Your task to perform on an android device: set the timer Image 0: 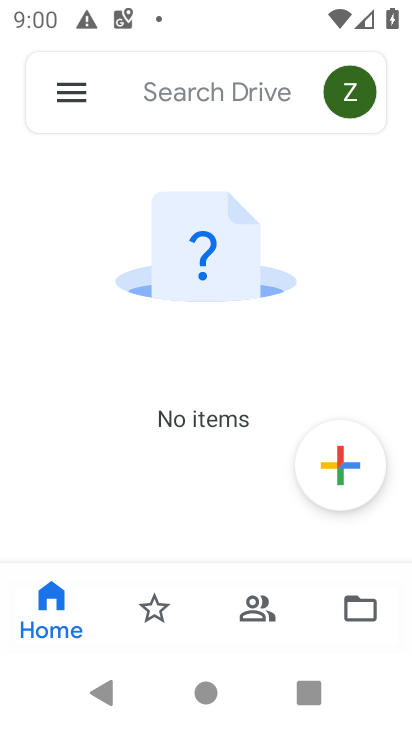
Step 0: task complete